Your task to perform on an android device: turn off priority inbox in the gmail app Image 0: 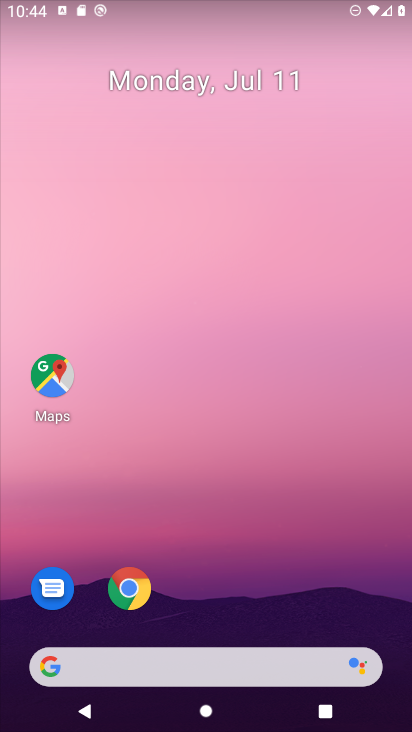
Step 0: drag from (390, 642) to (208, 86)
Your task to perform on an android device: turn off priority inbox in the gmail app Image 1: 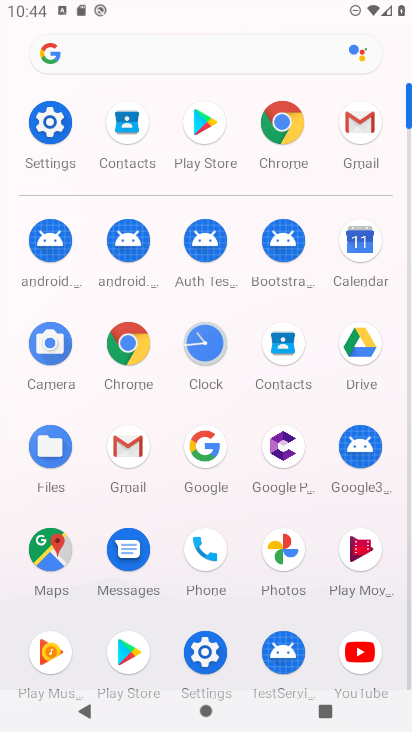
Step 1: click (130, 448)
Your task to perform on an android device: turn off priority inbox in the gmail app Image 2: 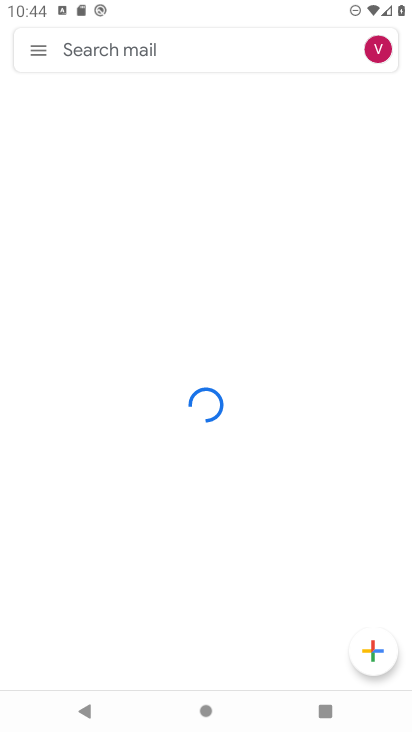
Step 2: click (37, 59)
Your task to perform on an android device: turn off priority inbox in the gmail app Image 3: 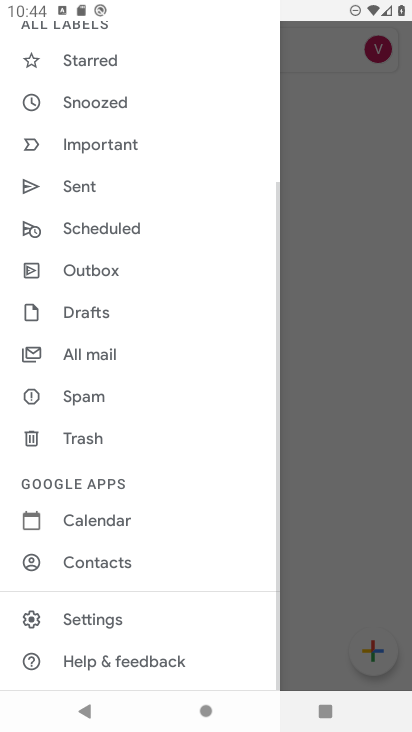
Step 3: click (121, 622)
Your task to perform on an android device: turn off priority inbox in the gmail app Image 4: 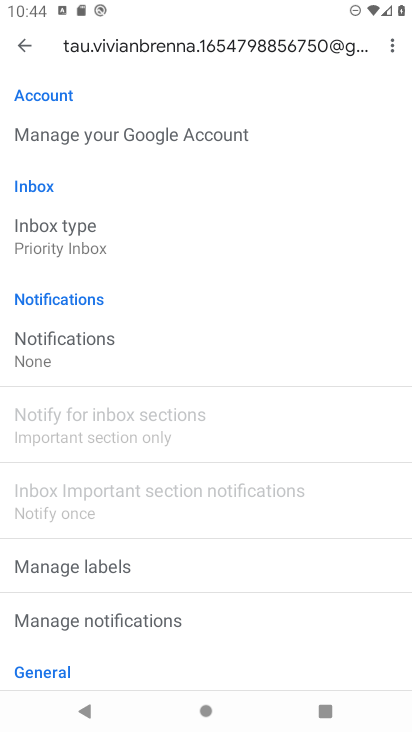
Step 4: click (108, 254)
Your task to perform on an android device: turn off priority inbox in the gmail app Image 5: 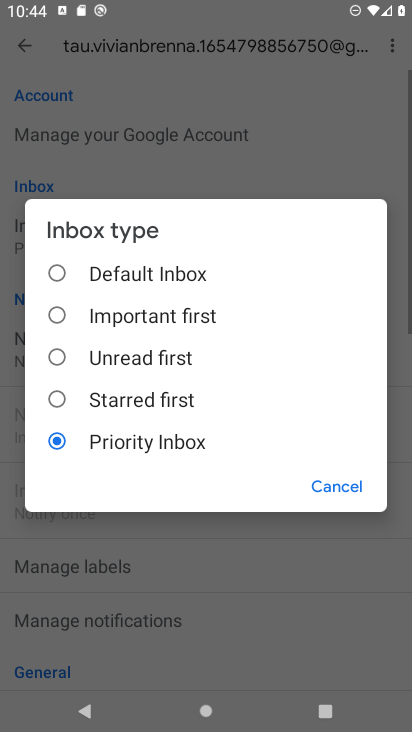
Step 5: click (83, 270)
Your task to perform on an android device: turn off priority inbox in the gmail app Image 6: 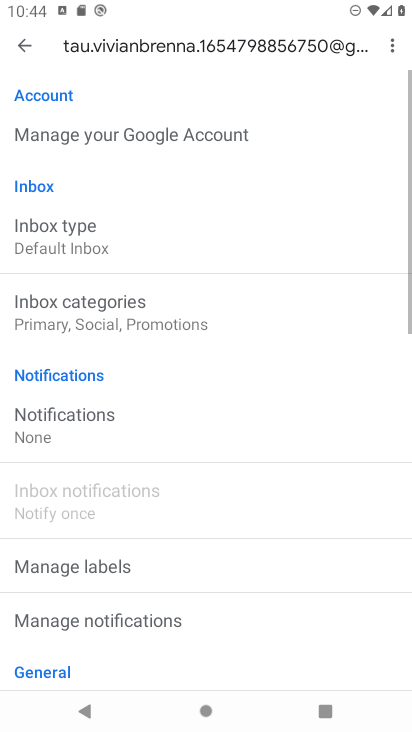
Step 6: task complete